Your task to perform on an android device: turn on the 12-hour format for clock Image 0: 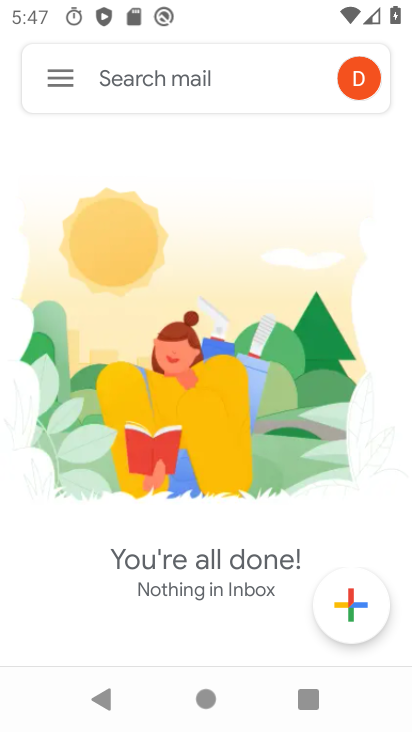
Step 0: press home button
Your task to perform on an android device: turn on the 12-hour format for clock Image 1: 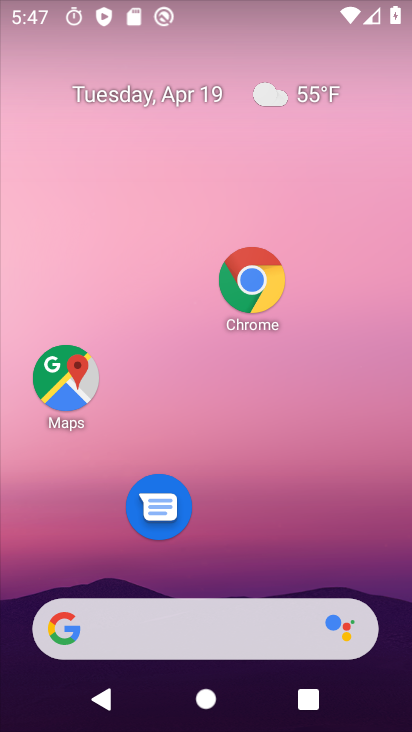
Step 1: drag from (204, 597) to (202, 417)
Your task to perform on an android device: turn on the 12-hour format for clock Image 2: 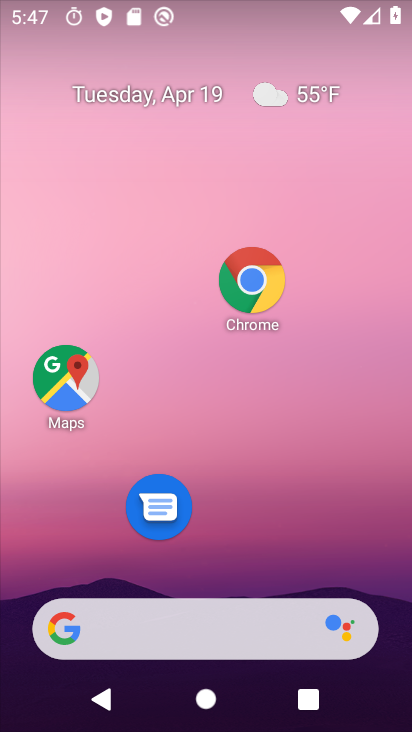
Step 2: drag from (217, 599) to (252, 235)
Your task to perform on an android device: turn on the 12-hour format for clock Image 3: 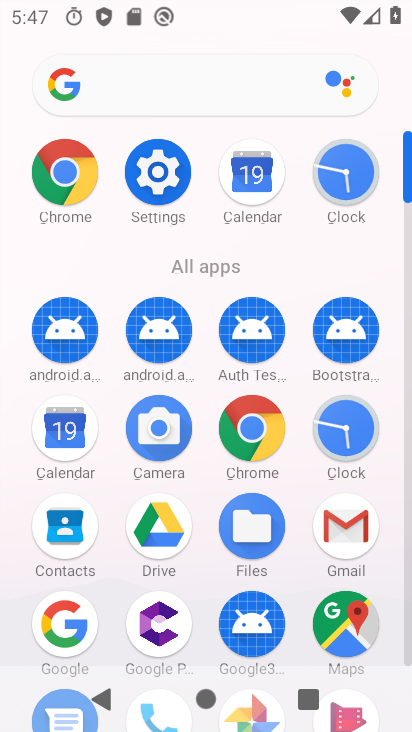
Step 3: click (343, 439)
Your task to perform on an android device: turn on the 12-hour format for clock Image 4: 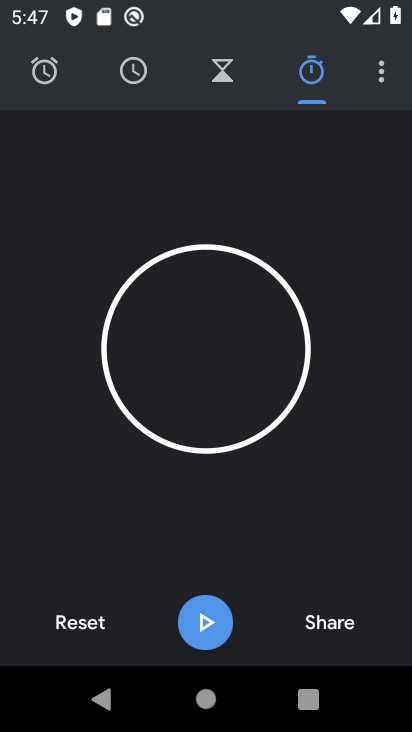
Step 4: click (380, 73)
Your task to perform on an android device: turn on the 12-hour format for clock Image 5: 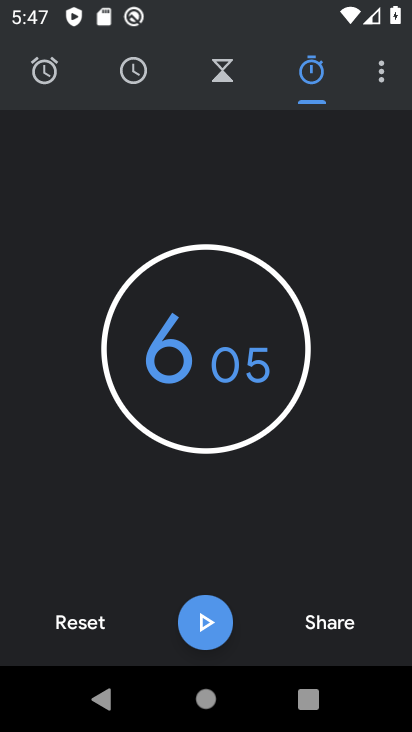
Step 5: click (380, 73)
Your task to perform on an android device: turn on the 12-hour format for clock Image 6: 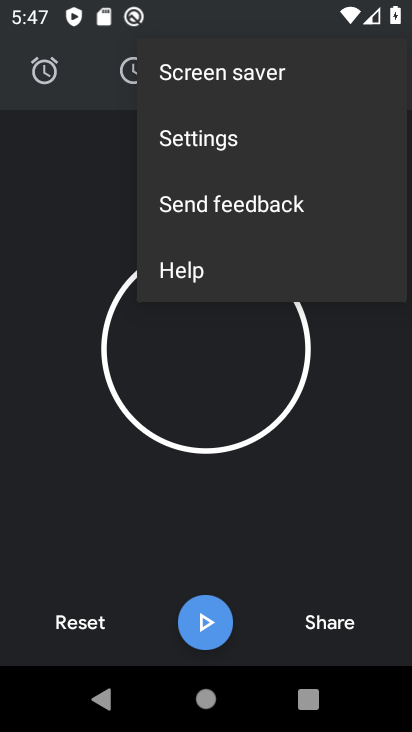
Step 6: click (220, 134)
Your task to perform on an android device: turn on the 12-hour format for clock Image 7: 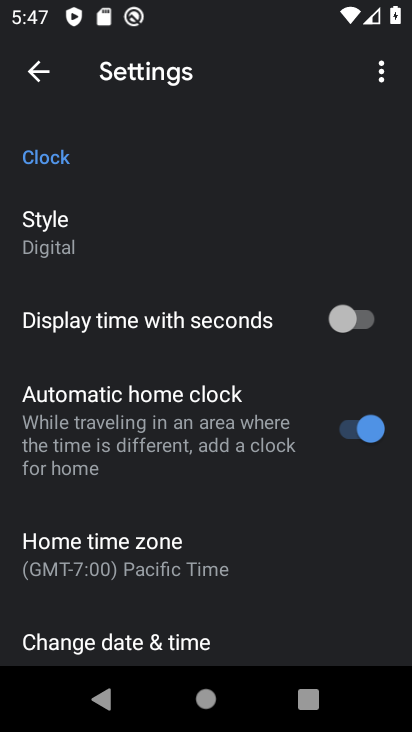
Step 7: click (143, 635)
Your task to perform on an android device: turn on the 12-hour format for clock Image 8: 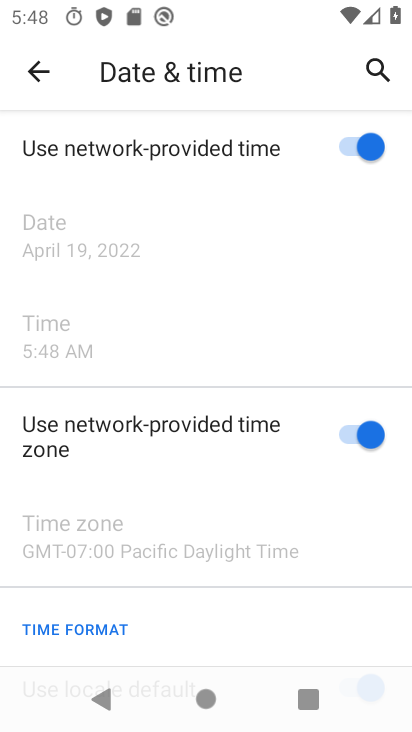
Step 8: task complete